Your task to perform on an android device: turn off javascript in the chrome app Image 0: 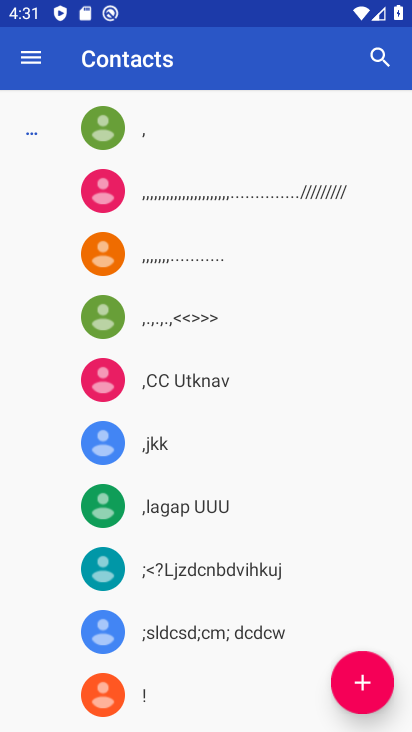
Step 0: press home button
Your task to perform on an android device: turn off javascript in the chrome app Image 1: 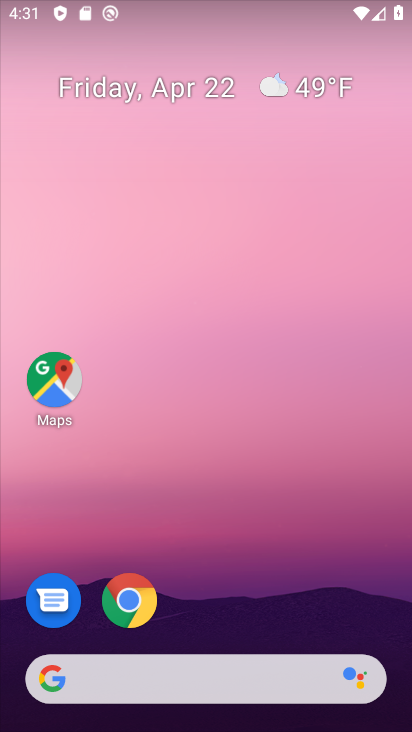
Step 1: click (130, 597)
Your task to perform on an android device: turn off javascript in the chrome app Image 2: 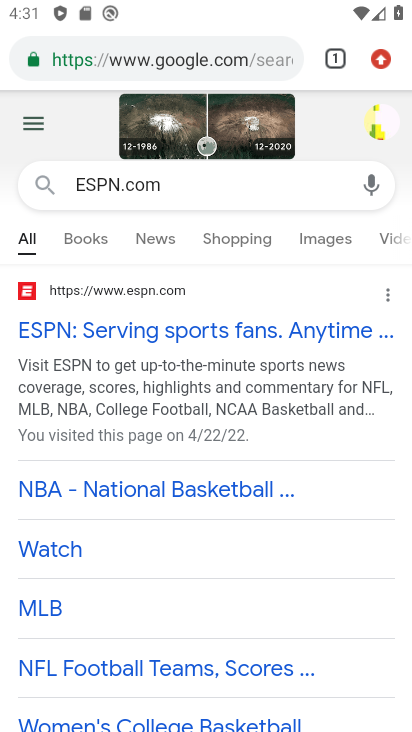
Step 2: click (381, 61)
Your task to perform on an android device: turn off javascript in the chrome app Image 3: 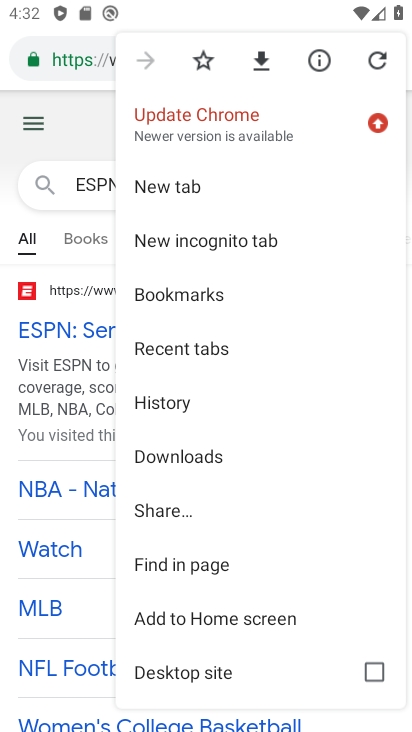
Step 3: drag from (234, 514) to (275, 320)
Your task to perform on an android device: turn off javascript in the chrome app Image 4: 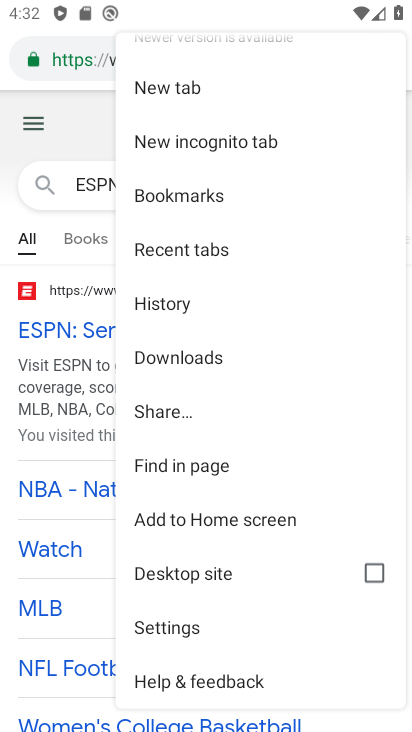
Step 4: click (165, 633)
Your task to perform on an android device: turn off javascript in the chrome app Image 5: 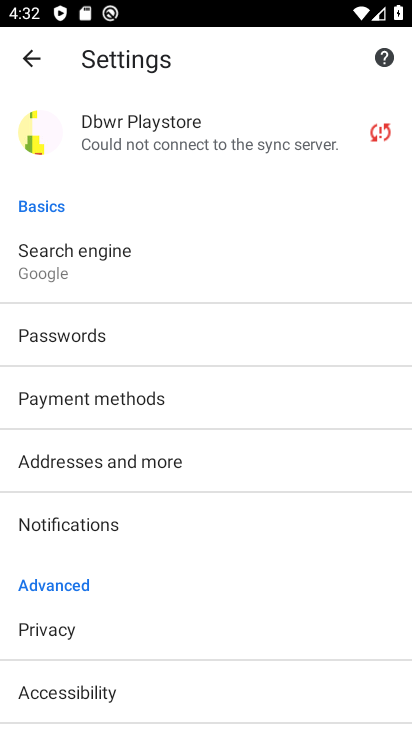
Step 5: drag from (159, 535) to (205, 401)
Your task to perform on an android device: turn off javascript in the chrome app Image 6: 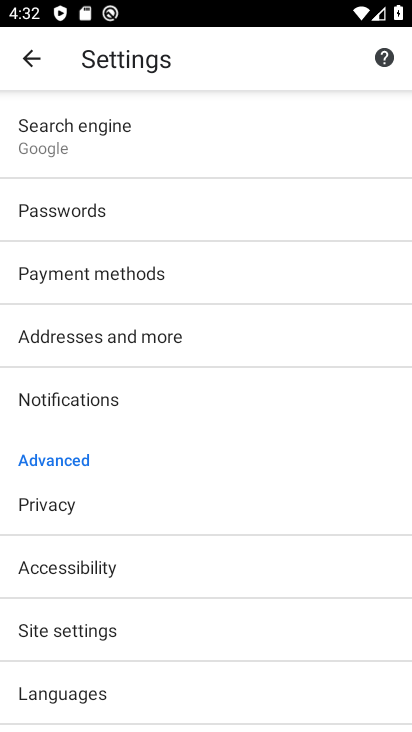
Step 6: drag from (144, 527) to (193, 408)
Your task to perform on an android device: turn off javascript in the chrome app Image 7: 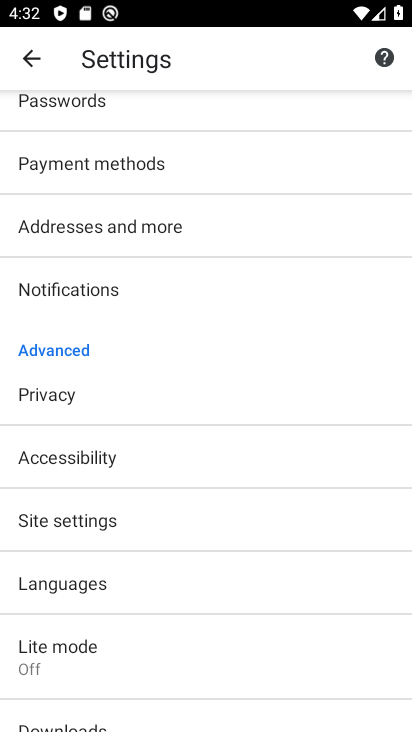
Step 7: click (93, 523)
Your task to perform on an android device: turn off javascript in the chrome app Image 8: 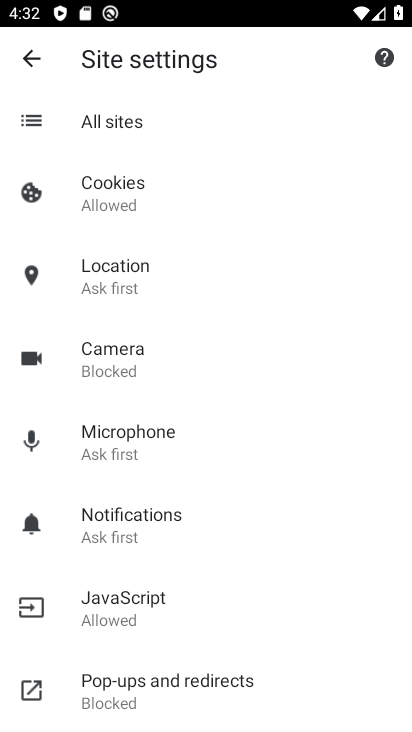
Step 8: click (137, 588)
Your task to perform on an android device: turn off javascript in the chrome app Image 9: 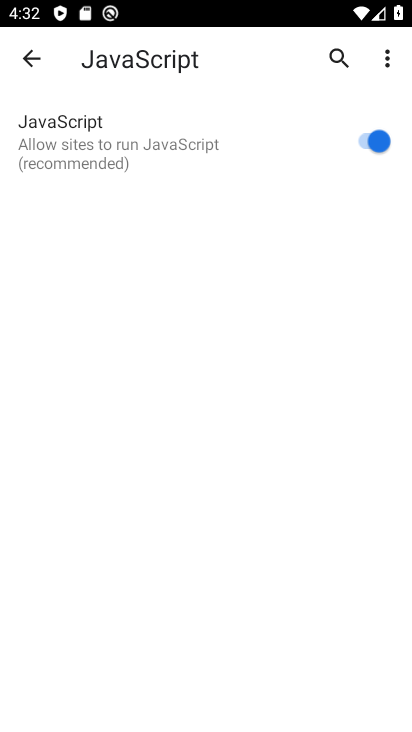
Step 9: click (364, 145)
Your task to perform on an android device: turn off javascript in the chrome app Image 10: 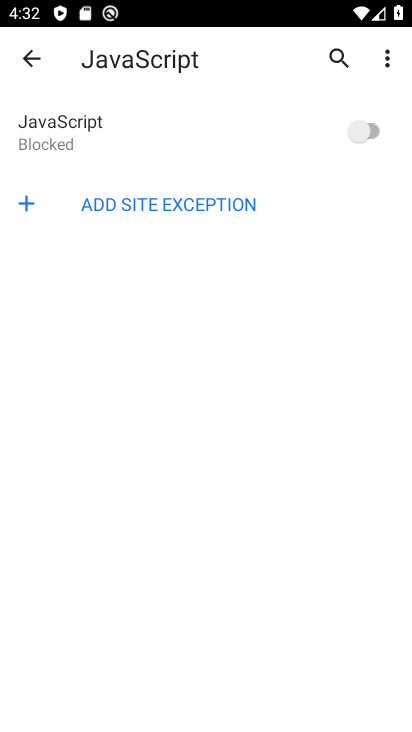
Step 10: task complete